Your task to perform on an android device: open the mobile data screen to see how much data has been used Image 0: 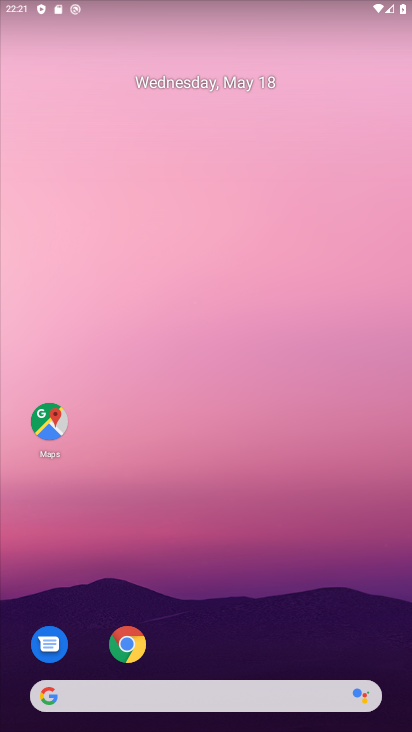
Step 0: drag from (232, 617) to (263, 147)
Your task to perform on an android device: open the mobile data screen to see how much data has been used Image 1: 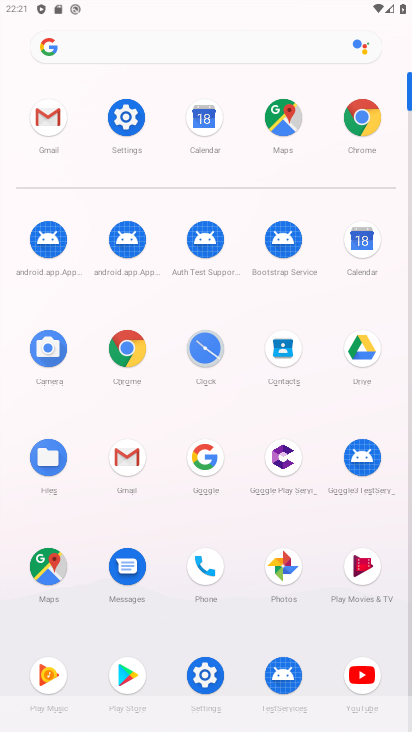
Step 1: click (119, 125)
Your task to perform on an android device: open the mobile data screen to see how much data has been used Image 2: 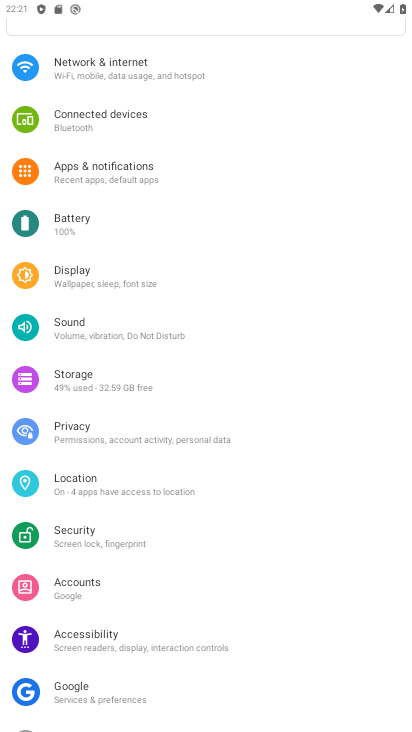
Step 2: click (135, 72)
Your task to perform on an android device: open the mobile data screen to see how much data has been used Image 3: 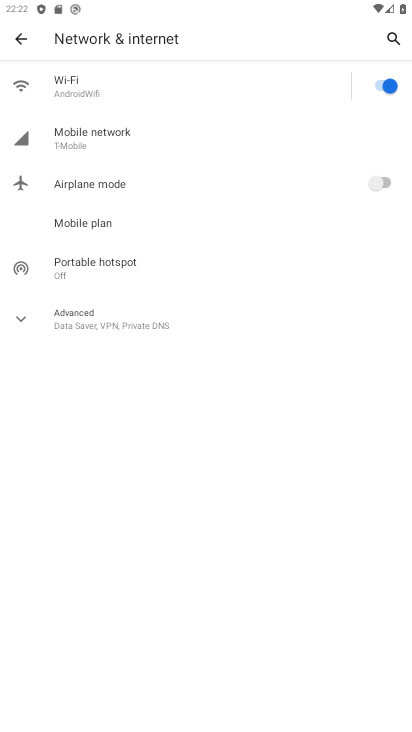
Step 3: click (108, 134)
Your task to perform on an android device: open the mobile data screen to see how much data has been used Image 4: 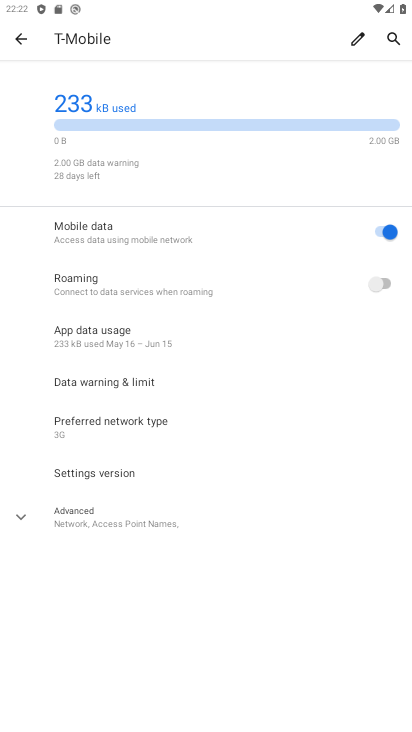
Step 4: task complete